Your task to perform on an android device: turn on location history Image 0: 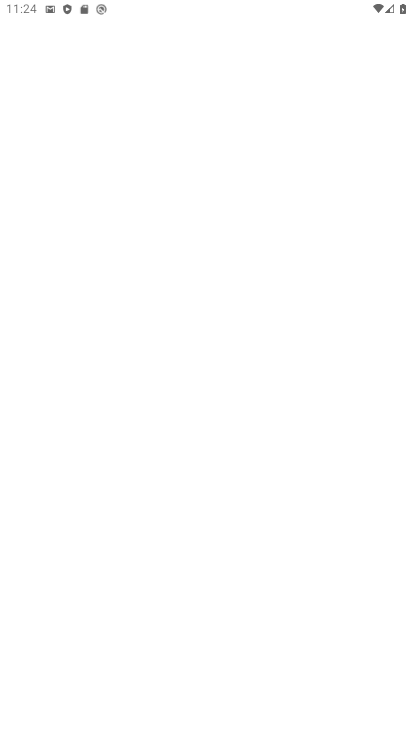
Step 0: click (128, 647)
Your task to perform on an android device: turn on location history Image 1: 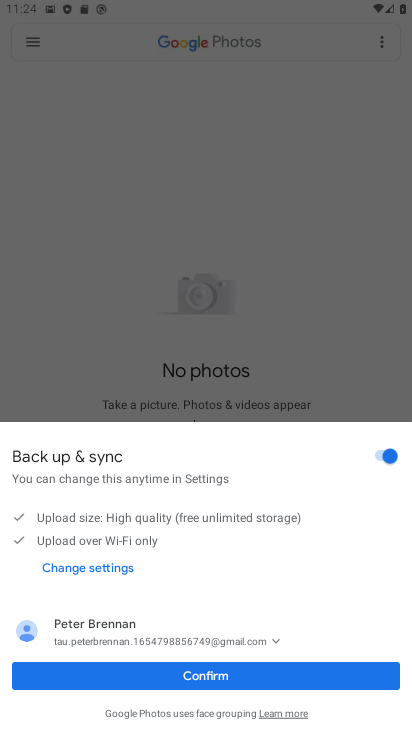
Step 1: press home button
Your task to perform on an android device: turn on location history Image 2: 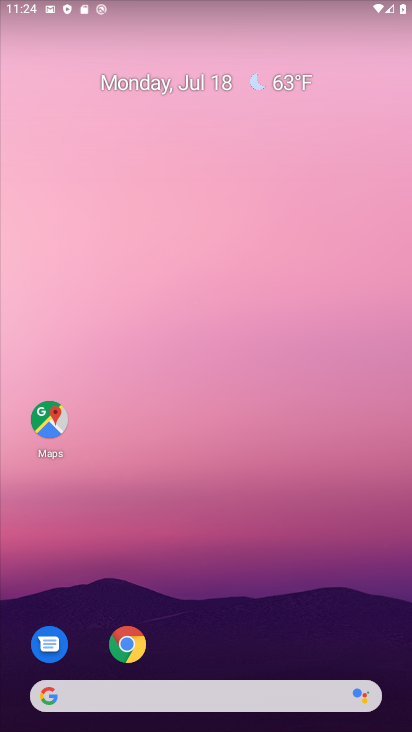
Step 2: drag from (207, 535) to (35, 45)
Your task to perform on an android device: turn on location history Image 3: 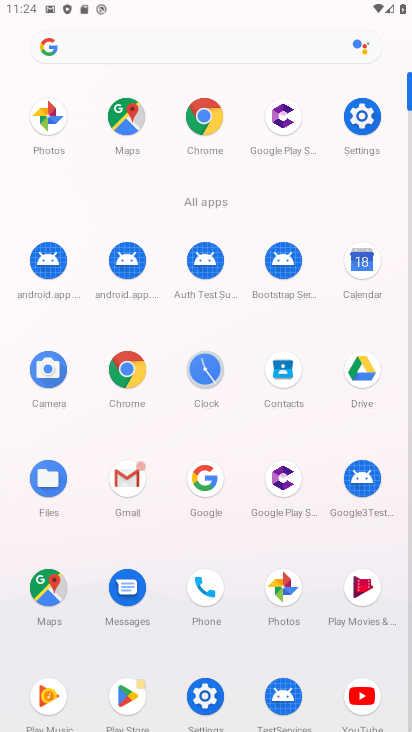
Step 3: click (365, 136)
Your task to perform on an android device: turn on location history Image 4: 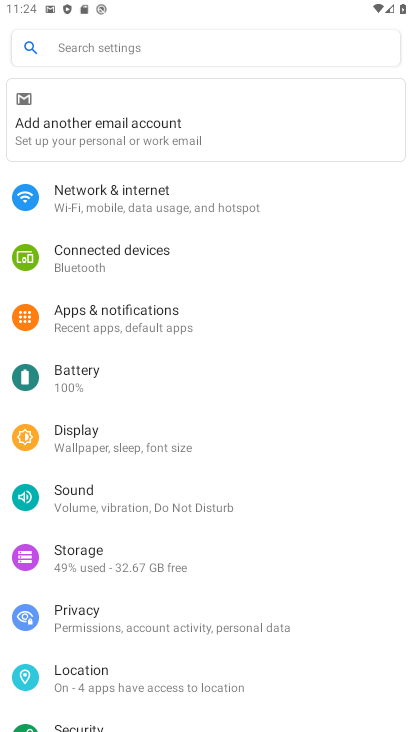
Step 4: click (100, 672)
Your task to perform on an android device: turn on location history Image 5: 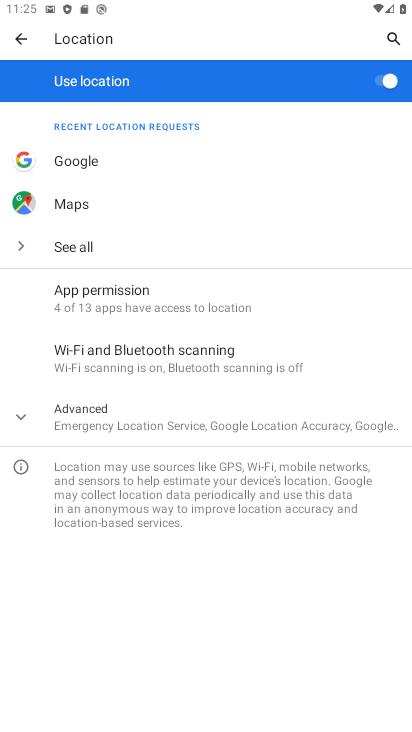
Step 5: click (34, 421)
Your task to perform on an android device: turn on location history Image 6: 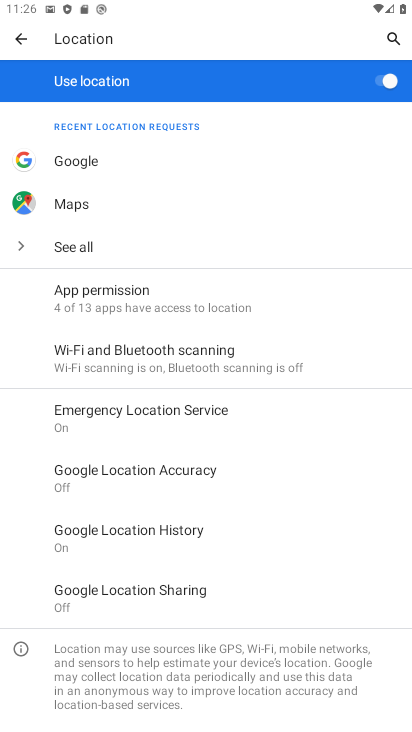
Step 6: click (130, 304)
Your task to perform on an android device: turn on location history Image 7: 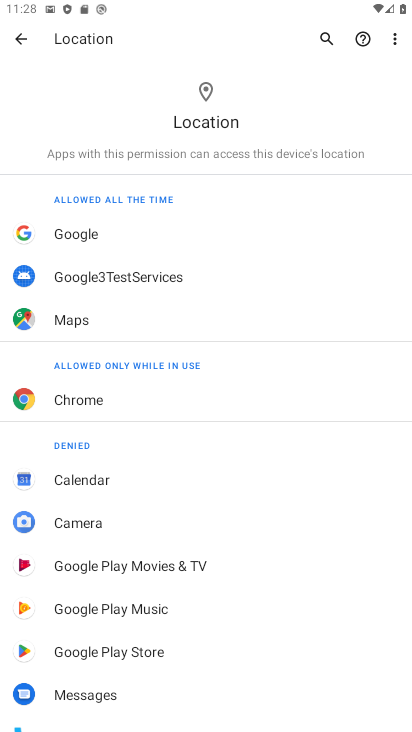
Step 7: press home button
Your task to perform on an android device: turn on location history Image 8: 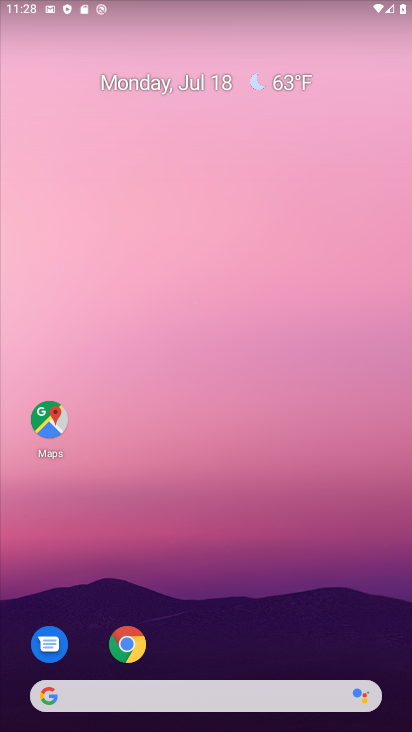
Step 8: drag from (245, 581) to (224, 82)
Your task to perform on an android device: turn on location history Image 9: 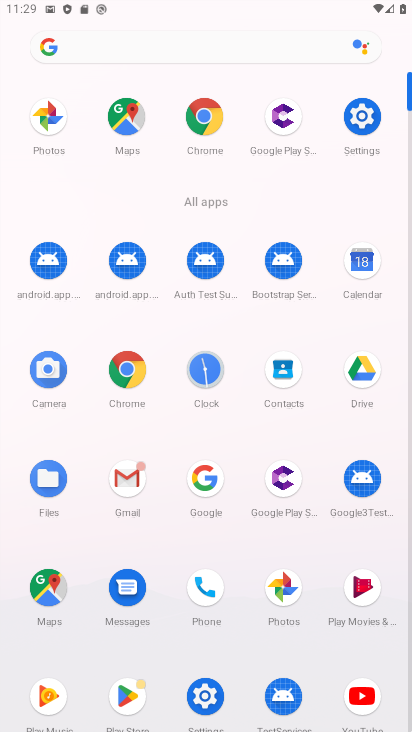
Step 9: click (364, 118)
Your task to perform on an android device: turn on location history Image 10: 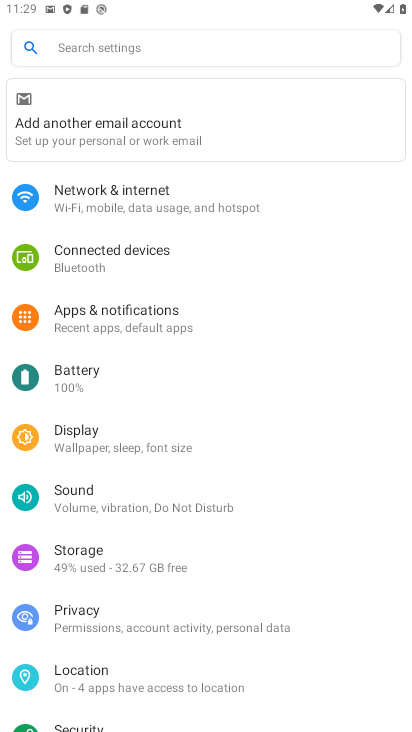
Step 10: click (80, 665)
Your task to perform on an android device: turn on location history Image 11: 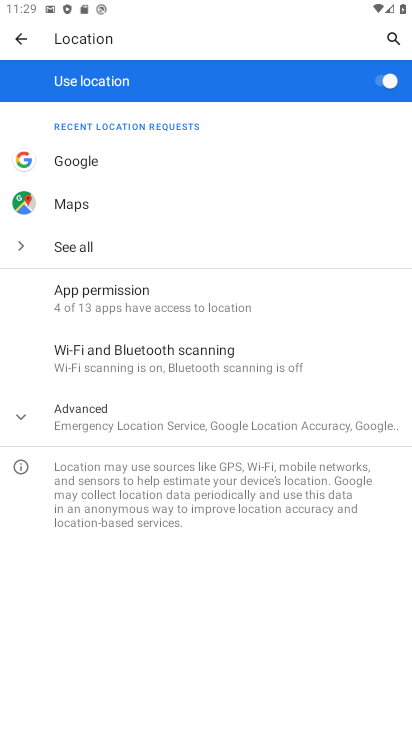
Step 11: click (14, 414)
Your task to perform on an android device: turn on location history Image 12: 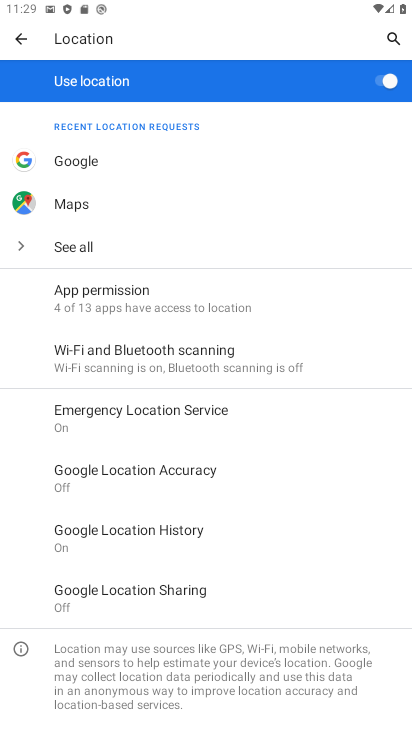
Step 12: click (81, 534)
Your task to perform on an android device: turn on location history Image 13: 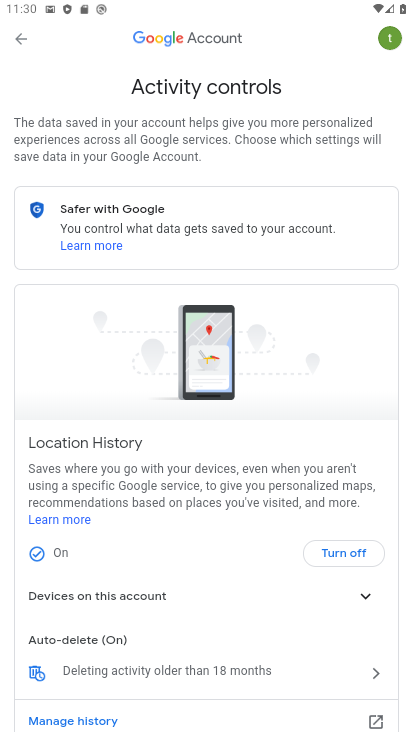
Step 13: task complete